Your task to perform on an android device: turn on location history Image 0: 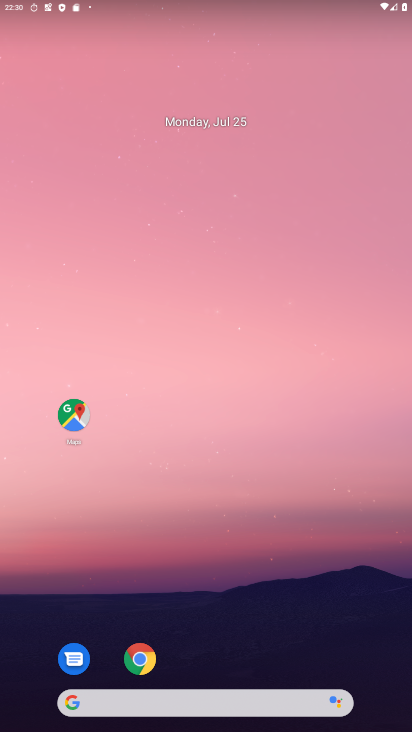
Step 0: drag from (240, 649) to (242, 252)
Your task to perform on an android device: turn on location history Image 1: 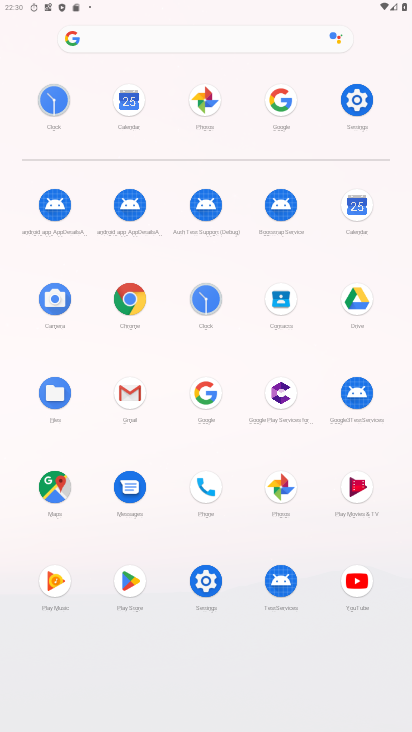
Step 1: click (346, 103)
Your task to perform on an android device: turn on location history Image 2: 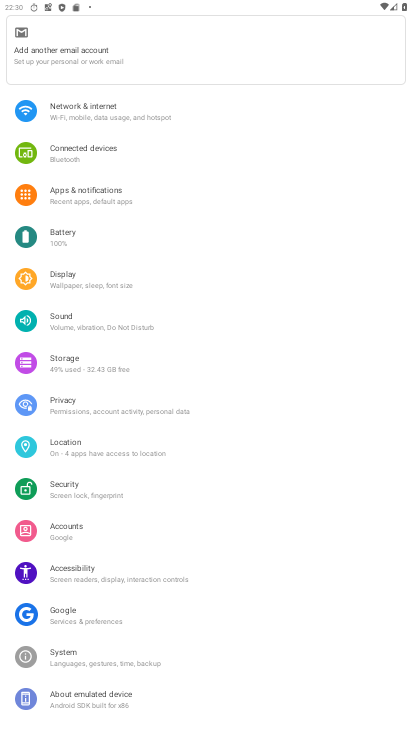
Step 2: click (86, 443)
Your task to perform on an android device: turn on location history Image 3: 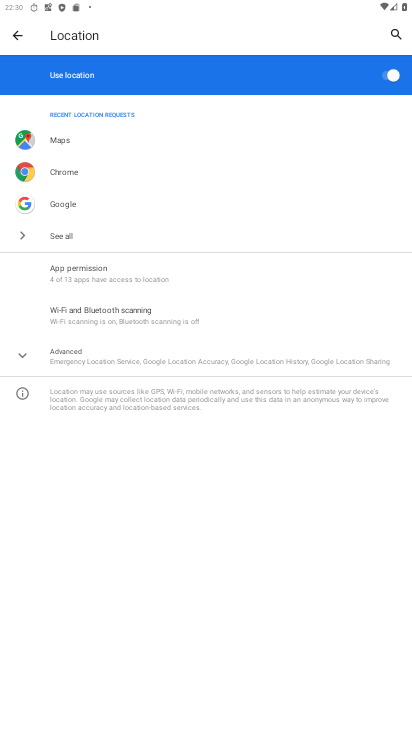
Step 3: click (110, 354)
Your task to perform on an android device: turn on location history Image 4: 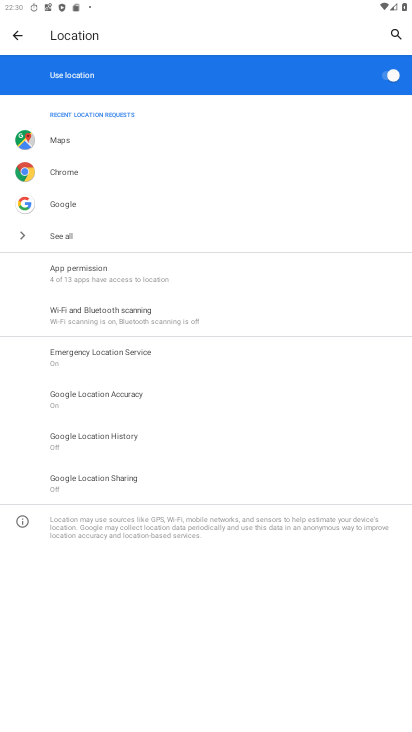
Step 4: click (65, 440)
Your task to perform on an android device: turn on location history Image 5: 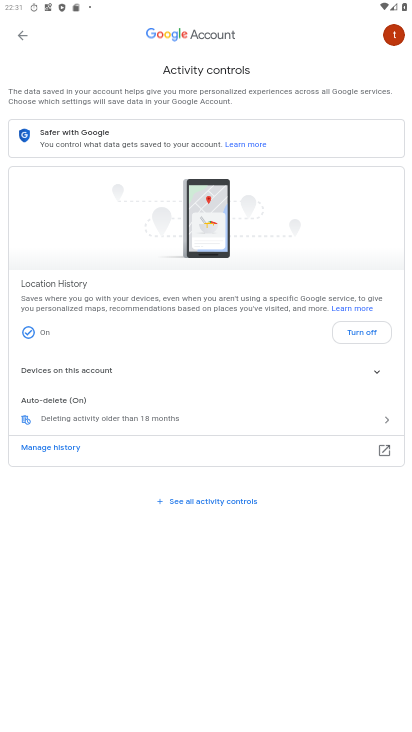
Step 5: task complete